Your task to perform on an android device: Show me the alarms in the clock app Image 0: 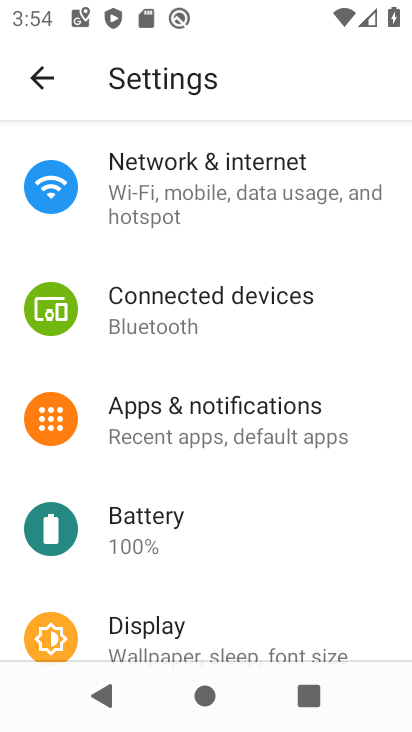
Step 0: press home button
Your task to perform on an android device: Show me the alarms in the clock app Image 1: 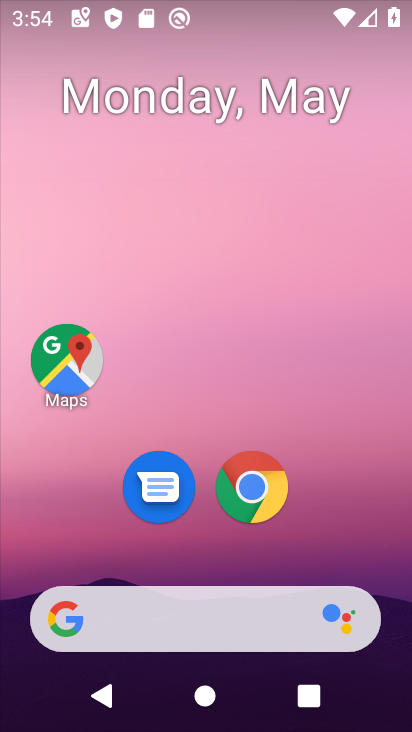
Step 1: drag from (183, 600) to (191, 306)
Your task to perform on an android device: Show me the alarms in the clock app Image 2: 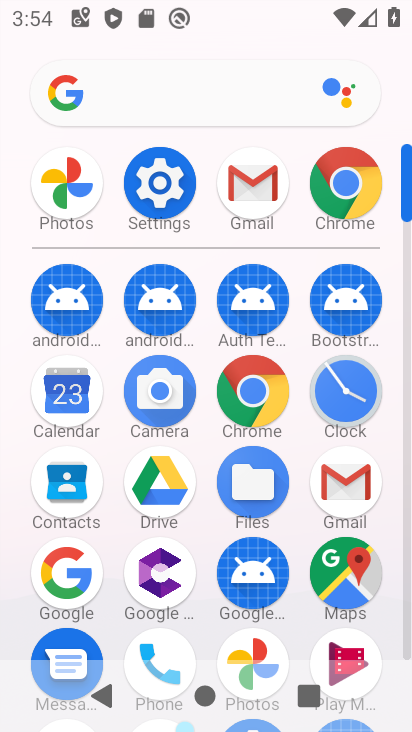
Step 2: click (346, 389)
Your task to perform on an android device: Show me the alarms in the clock app Image 3: 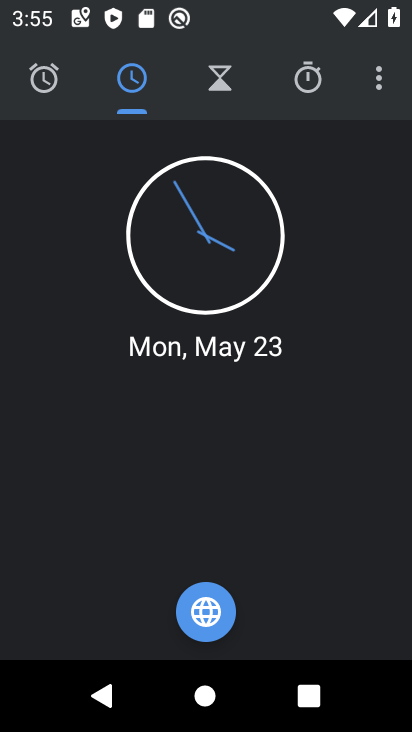
Step 3: click (381, 78)
Your task to perform on an android device: Show me the alarms in the clock app Image 4: 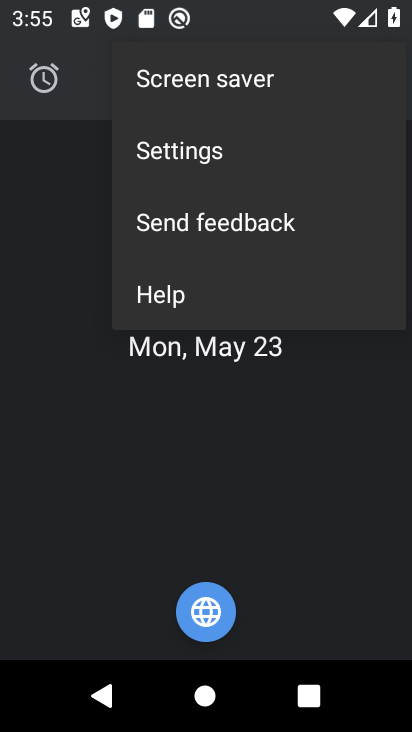
Step 4: click (343, 457)
Your task to perform on an android device: Show me the alarms in the clock app Image 5: 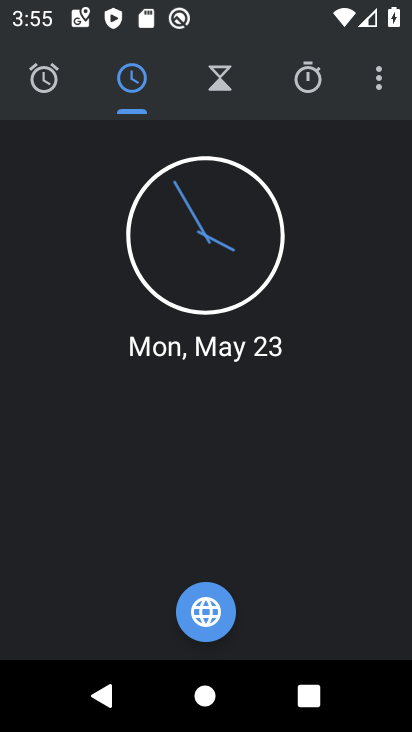
Step 5: click (40, 93)
Your task to perform on an android device: Show me the alarms in the clock app Image 6: 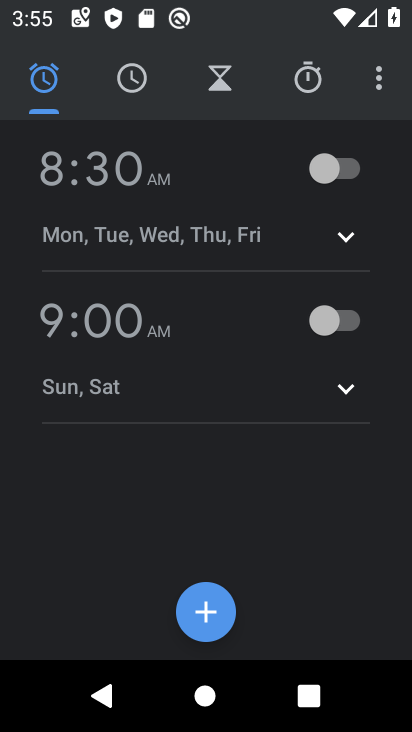
Step 6: task complete